Your task to perform on an android device: delete browsing data in the chrome app Image 0: 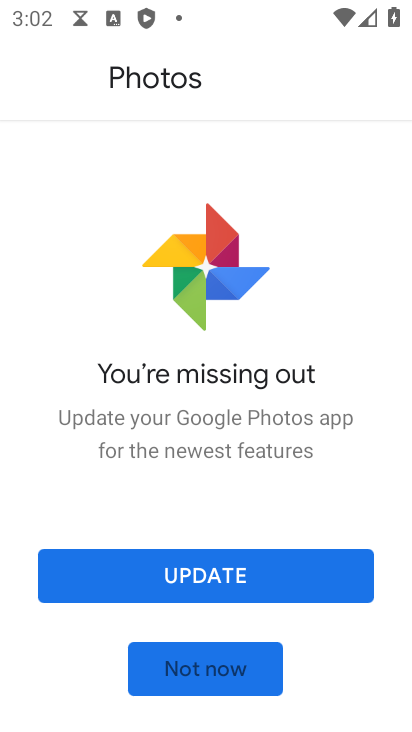
Step 0: press home button
Your task to perform on an android device: delete browsing data in the chrome app Image 1: 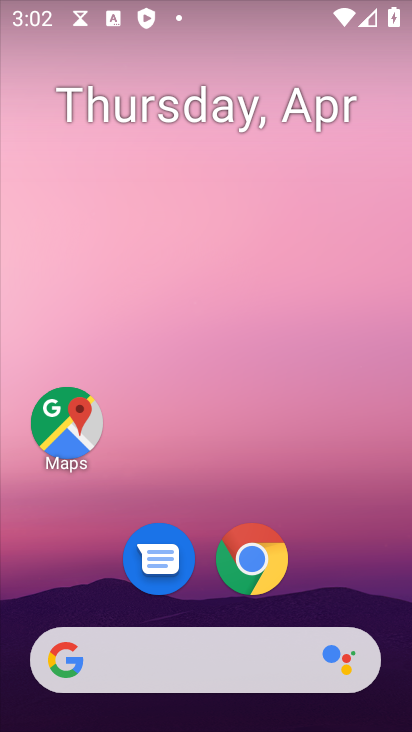
Step 1: click (259, 555)
Your task to perform on an android device: delete browsing data in the chrome app Image 2: 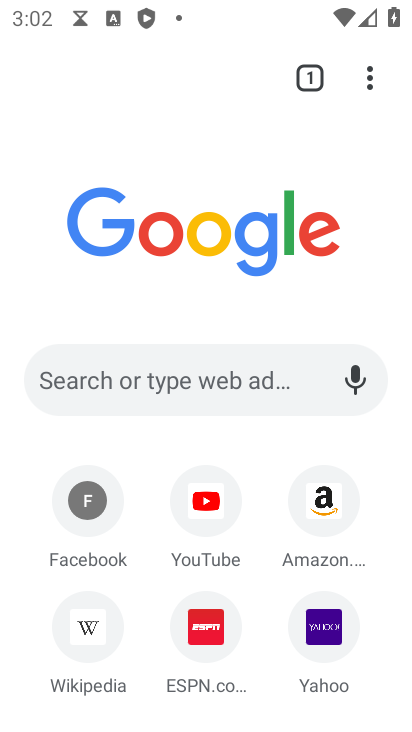
Step 2: click (367, 88)
Your task to perform on an android device: delete browsing data in the chrome app Image 3: 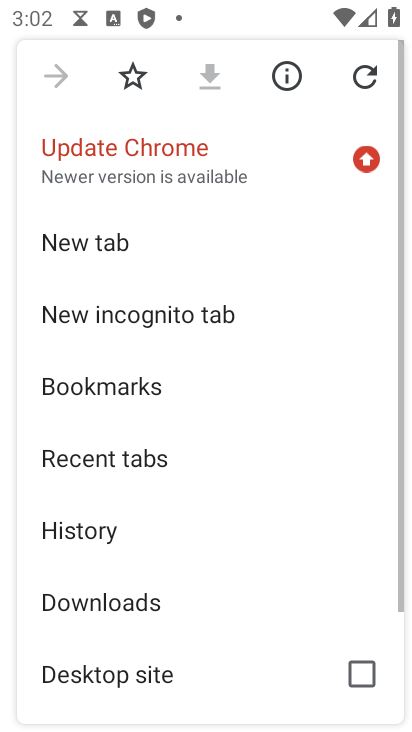
Step 3: drag from (298, 550) to (253, 181)
Your task to perform on an android device: delete browsing data in the chrome app Image 4: 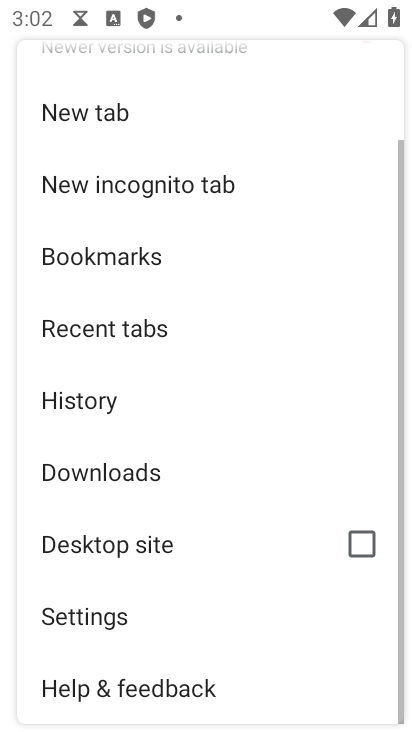
Step 4: click (139, 614)
Your task to perform on an android device: delete browsing data in the chrome app Image 5: 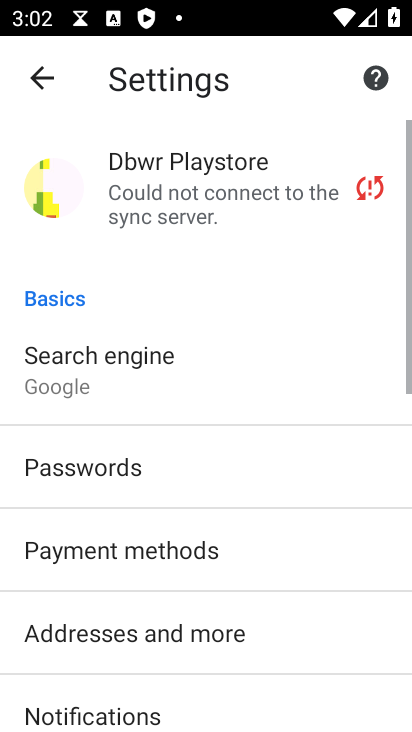
Step 5: drag from (135, 606) to (214, 148)
Your task to perform on an android device: delete browsing data in the chrome app Image 6: 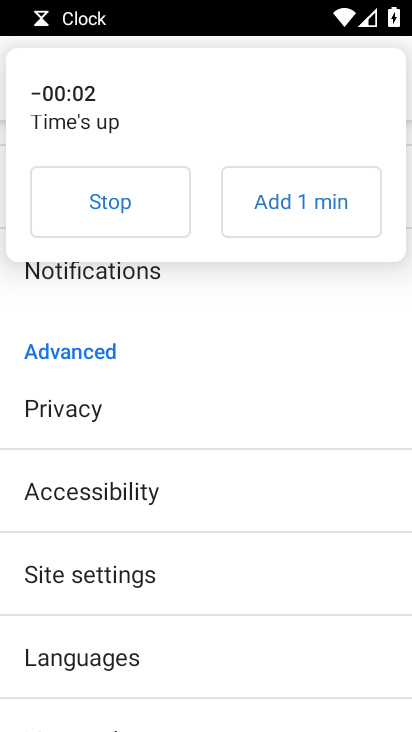
Step 6: click (133, 387)
Your task to perform on an android device: delete browsing data in the chrome app Image 7: 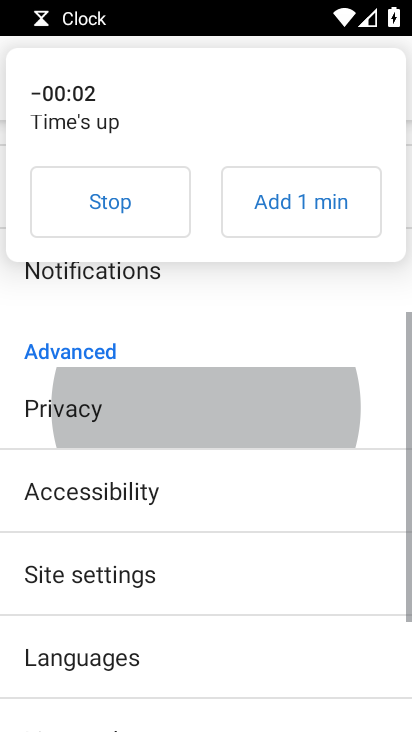
Step 7: click (141, 197)
Your task to perform on an android device: delete browsing data in the chrome app Image 8: 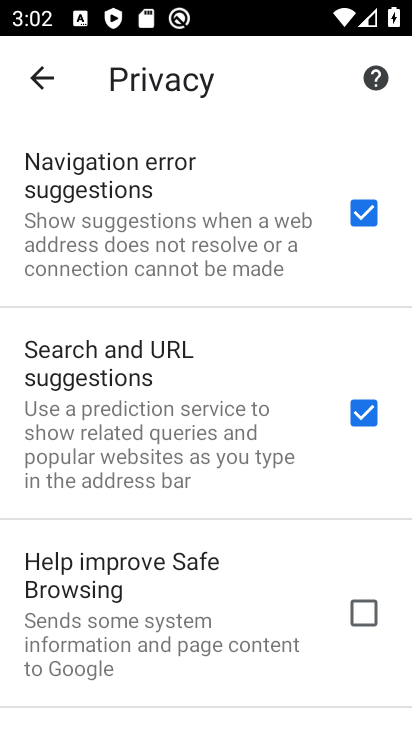
Step 8: drag from (214, 595) to (276, 166)
Your task to perform on an android device: delete browsing data in the chrome app Image 9: 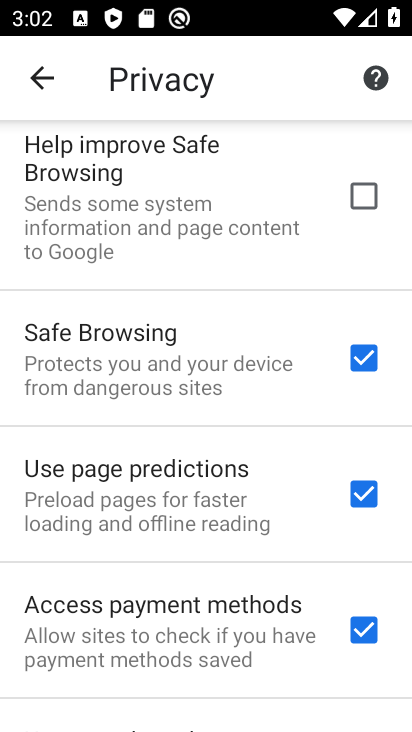
Step 9: drag from (245, 629) to (226, 181)
Your task to perform on an android device: delete browsing data in the chrome app Image 10: 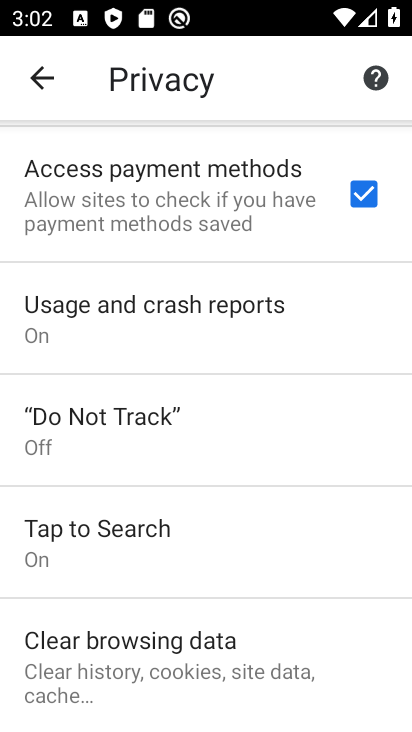
Step 10: drag from (201, 636) to (243, 251)
Your task to perform on an android device: delete browsing data in the chrome app Image 11: 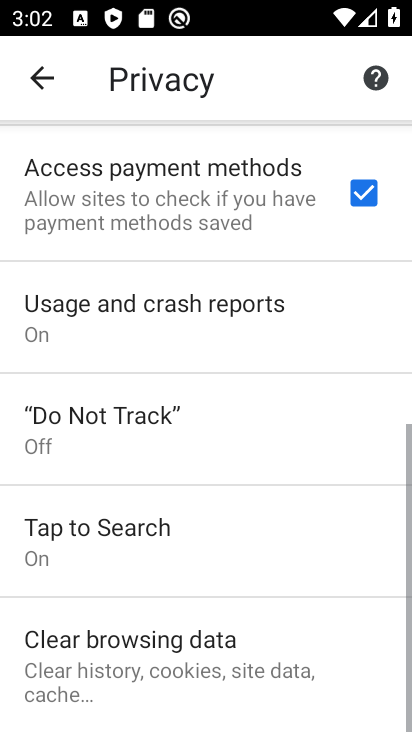
Step 11: click (161, 635)
Your task to perform on an android device: delete browsing data in the chrome app Image 12: 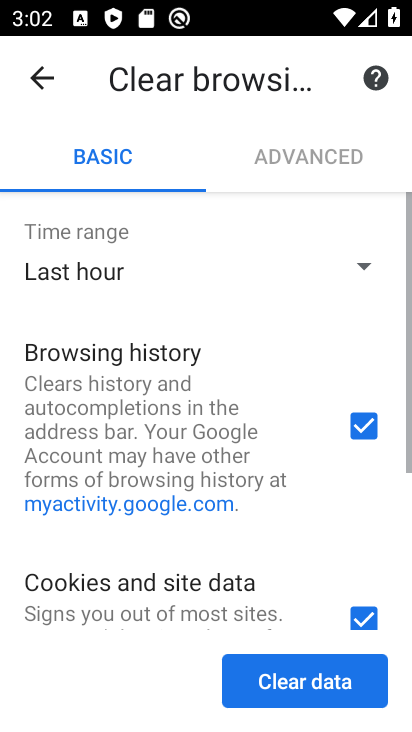
Step 12: drag from (244, 561) to (224, 246)
Your task to perform on an android device: delete browsing data in the chrome app Image 13: 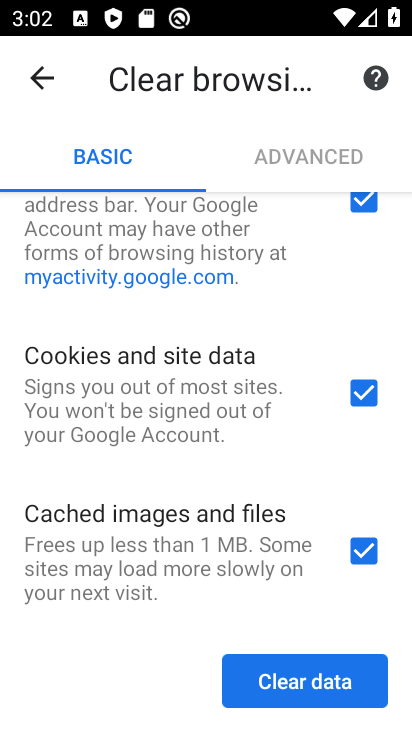
Step 13: click (279, 679)
Your task to perform on an android device: delete browsing data in the chrome app Image 14: 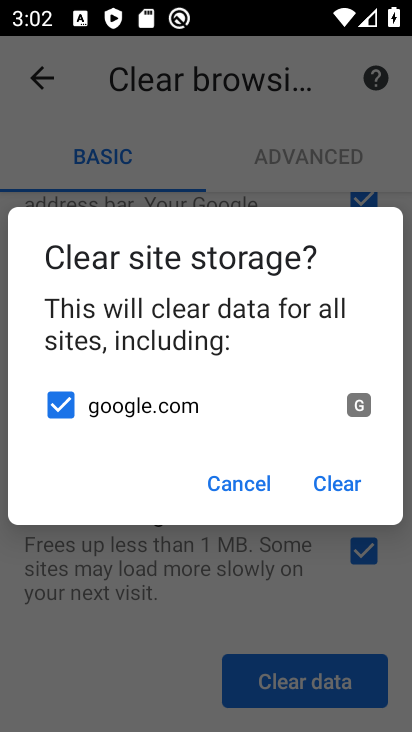
Step 14: click (322, 471)
Your task to perform on an android device: delete browsing data in the chrome app Image 15: 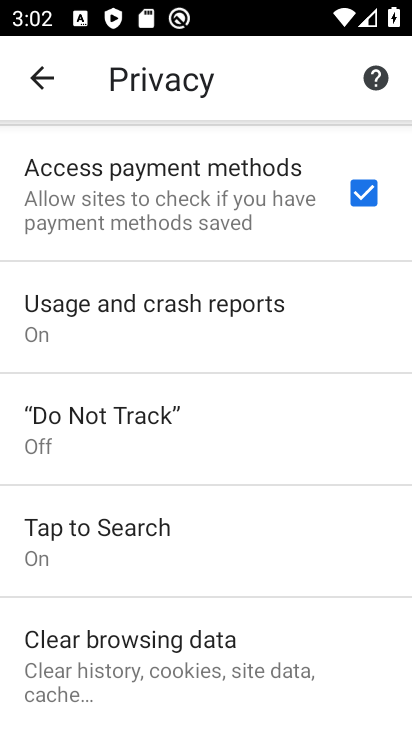
Step 15: task complete